Your task to perform on an android device: Search for a 1/2 in. x 1/2 in. x 24 in. 600 grit sander on Lowes.com Image 0: 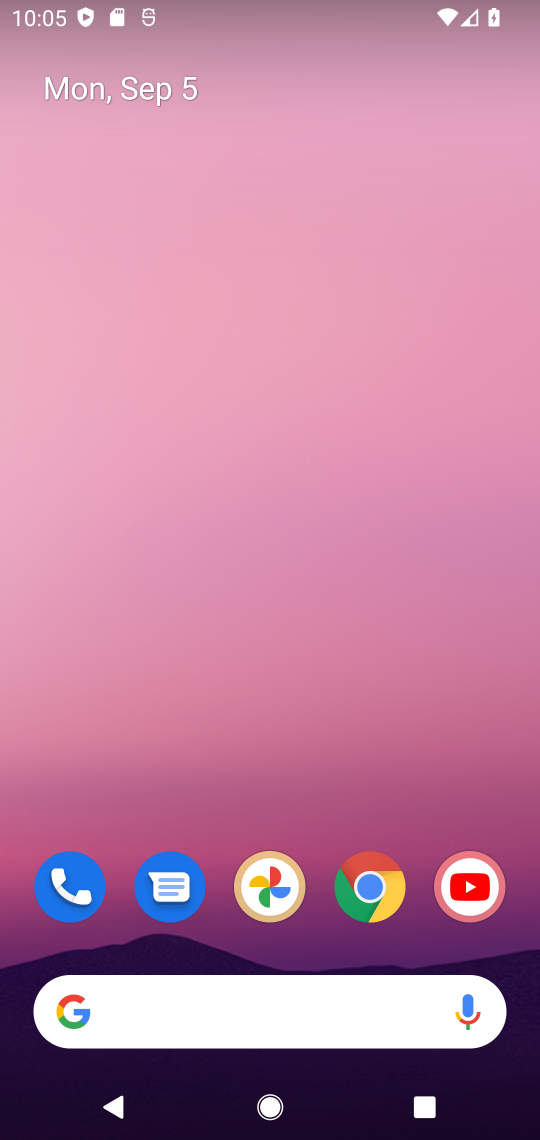
Step 0: click (359, 880)
Your task to perform on an android device: Search for a 1/2 in. x 1/2 in. x 24 in. 600 grit sander on Lowes.com Image 1: 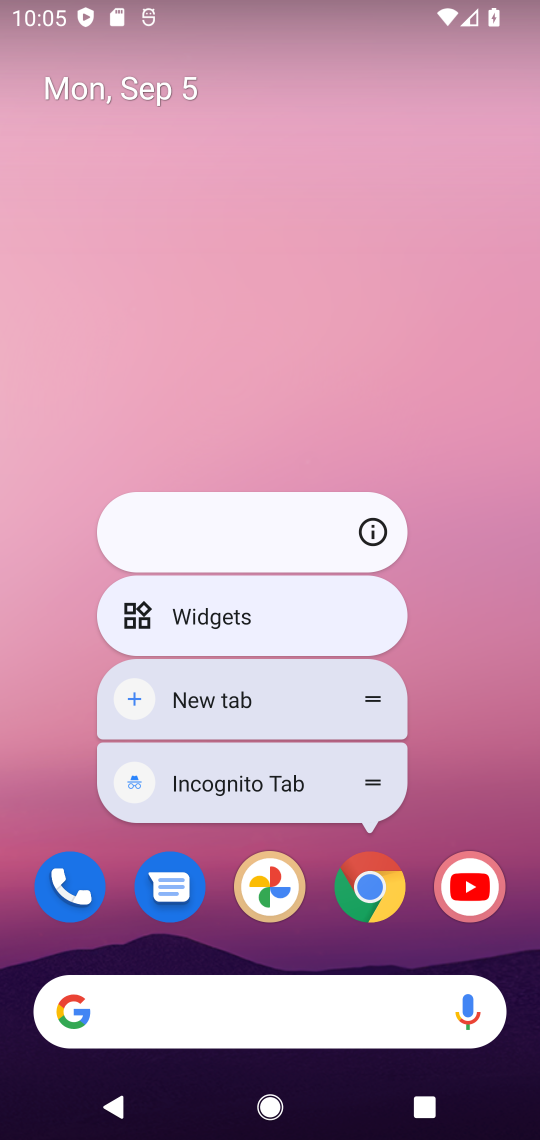
Step 1: click (359, 879)
Your task to perform on an android device: Search for a 1/2 in. x 1/2 in. x 24 in. 600 grit sander on Lowes.com Image 2: 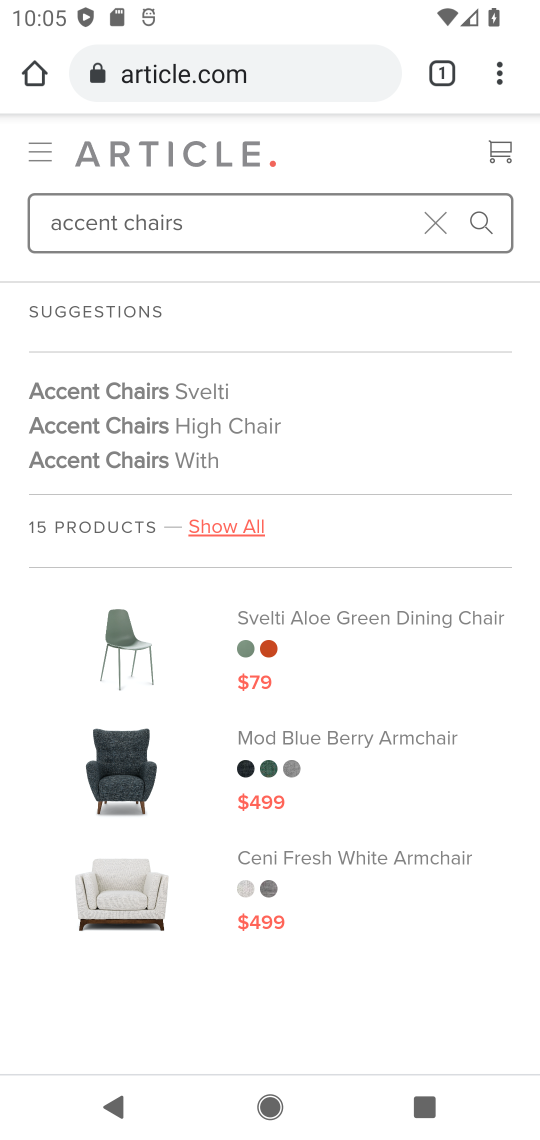
Step 2: click (194, 63)
Your task to perform on an android device: Search for a 1/2 in. x 1/2 in. x 24 in. 600 grit sander on Lowes.com Image 3: 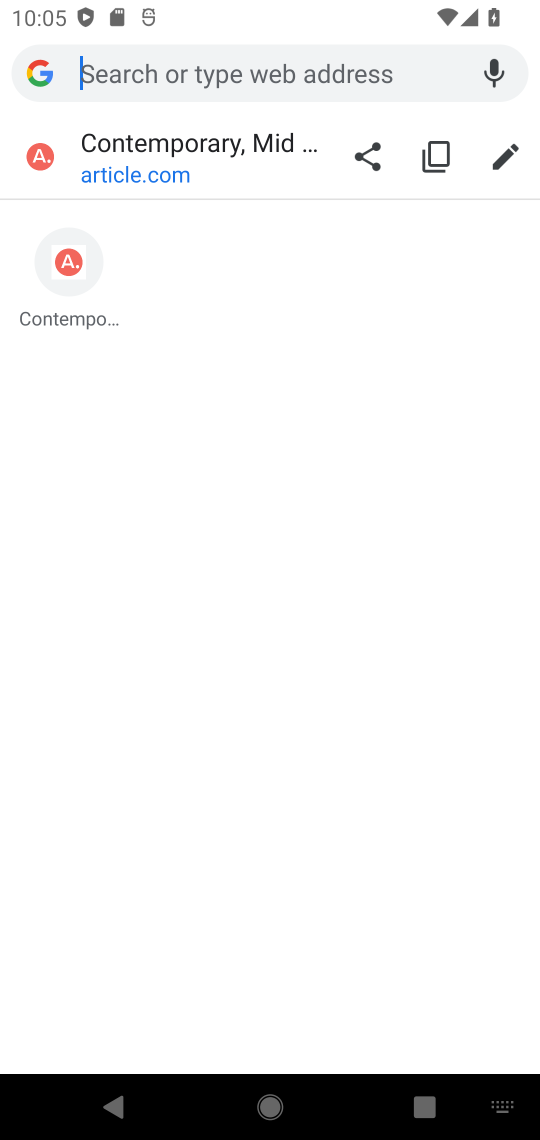
Step 3: type "Lowes.com"
Your task to perform on an android device: Search for a 1/2 in. x 1/2 in. x 24 in. 600 grit sander on Lowes.com Image 4: 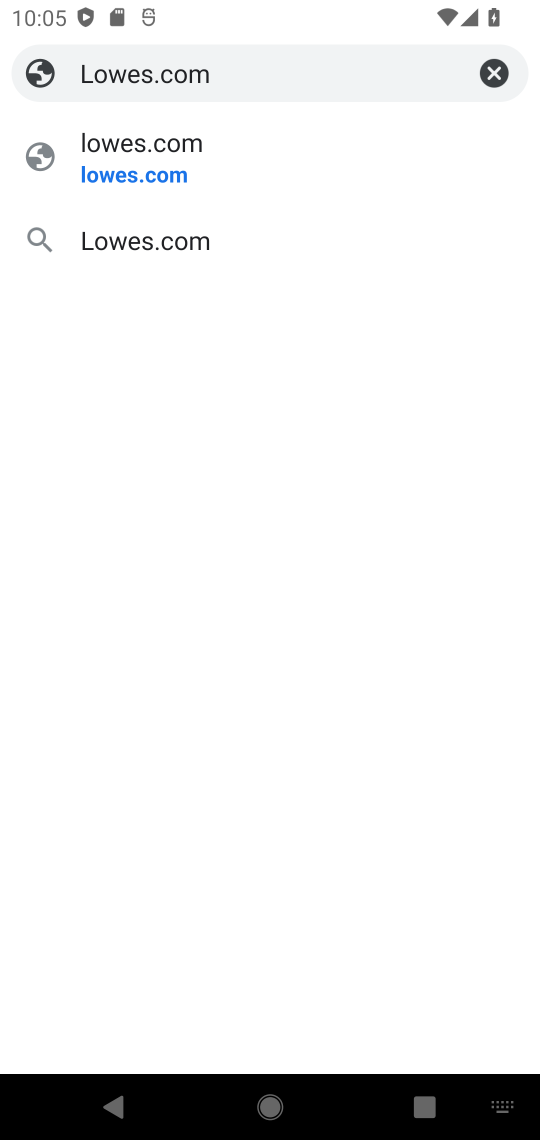
Step 4: click (143, 171)
Your task to perform on an android device: Search for a 1/2 in. x 1/2 in. x 24 in. 600 grit sander on Lowes.com Image 5: 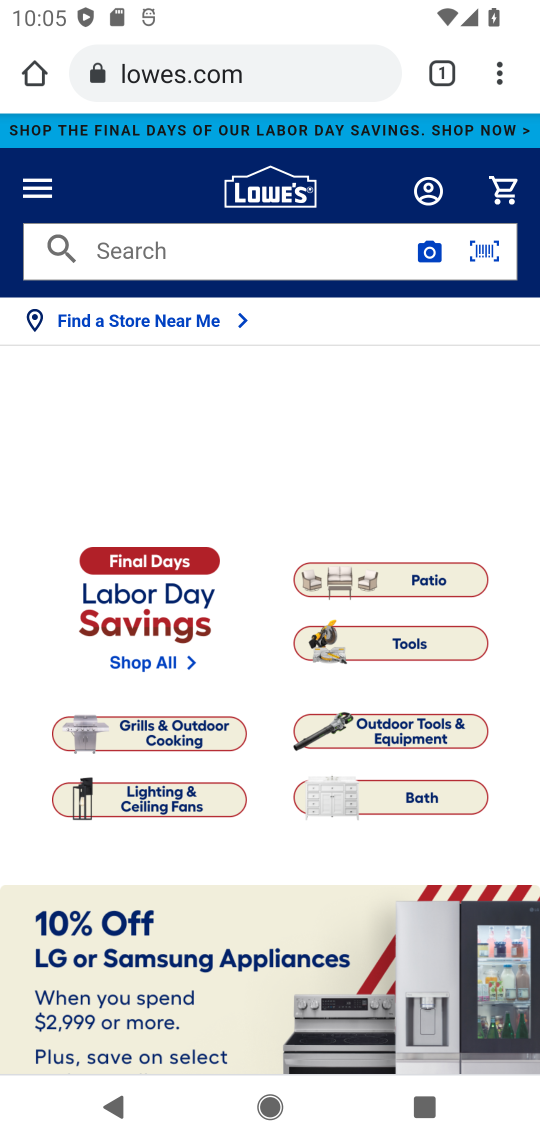
Step 5: click (210, 255)
Your task to perform on an android device: Search for a 1/2 in. x 1/2 in. x 24 in. 600 grit sander on Lowes.com Image 6: 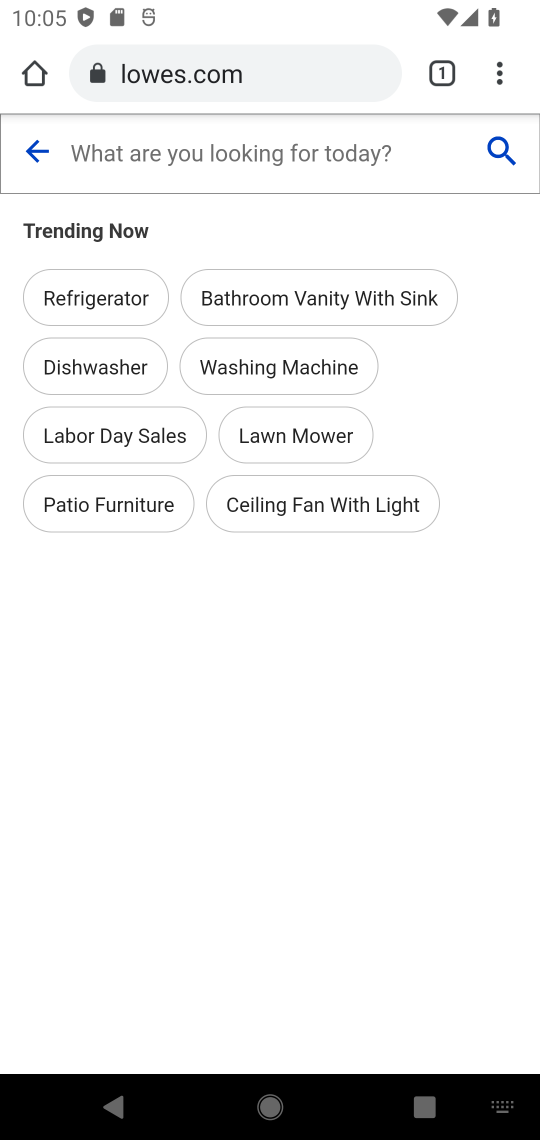
Step 6: drag from (232, 1138) to (522, 1073)
Your task to perform on an android device: Search for a 1/2 in. x 1/2 in. x 24 in. 600 grit sander on Lowes.com Image 7: 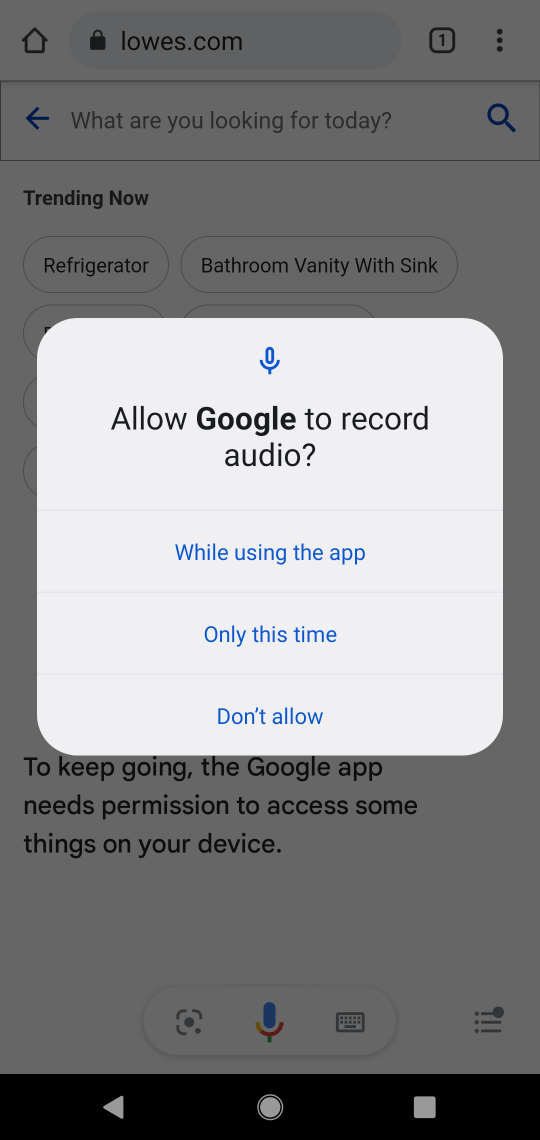
Step 7: click (198, 164)
Your task to perform on an android device: Search for a 1/2 in. x 1/2 in. x 24 in. 600 grit sander on Lowes.com Image 8: 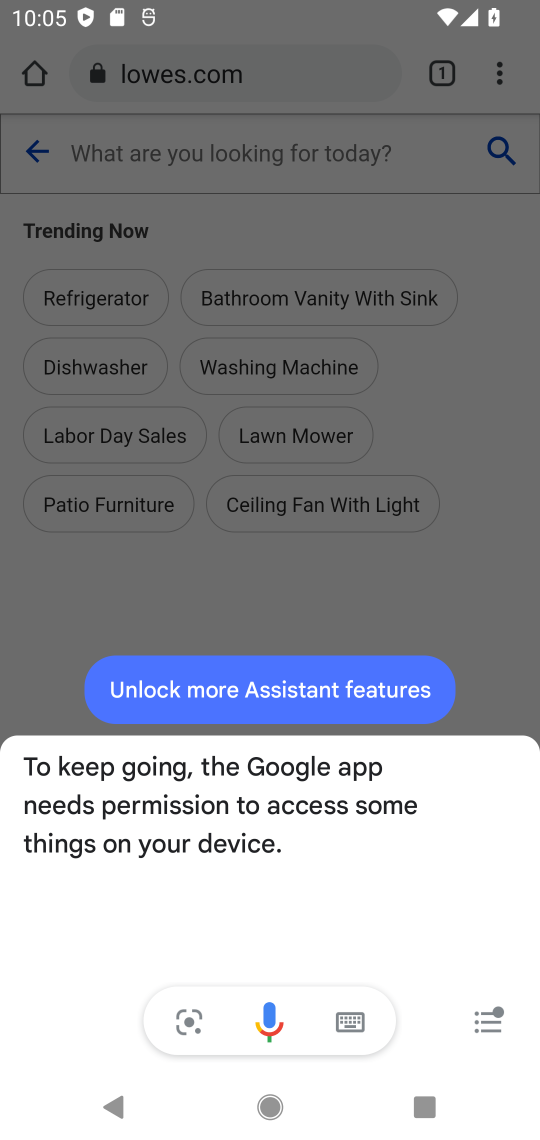
Step 8: click (198, 164)
Your task to perform on an android device: Search for a 1/2 in. x 1/2 in. x 24 in. 600 grit sander on Lowes.com Image 9: 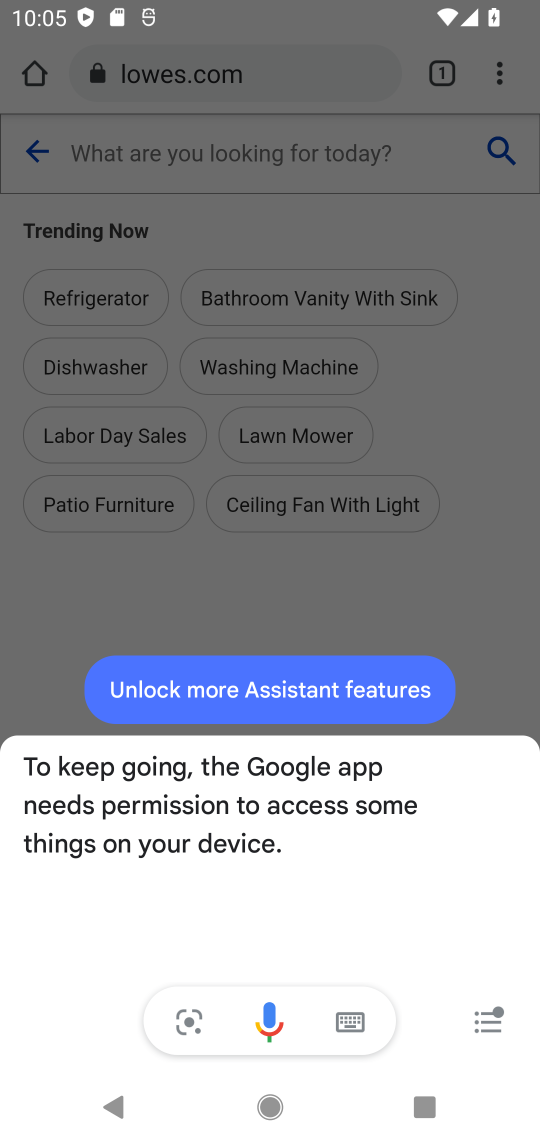
Step 9: click (198, 164)
Your task to perform on an android device: Search for a 1/2 in. x 1/2 in. x 24 in. 600 grit sander on Lowes.com Image 10: 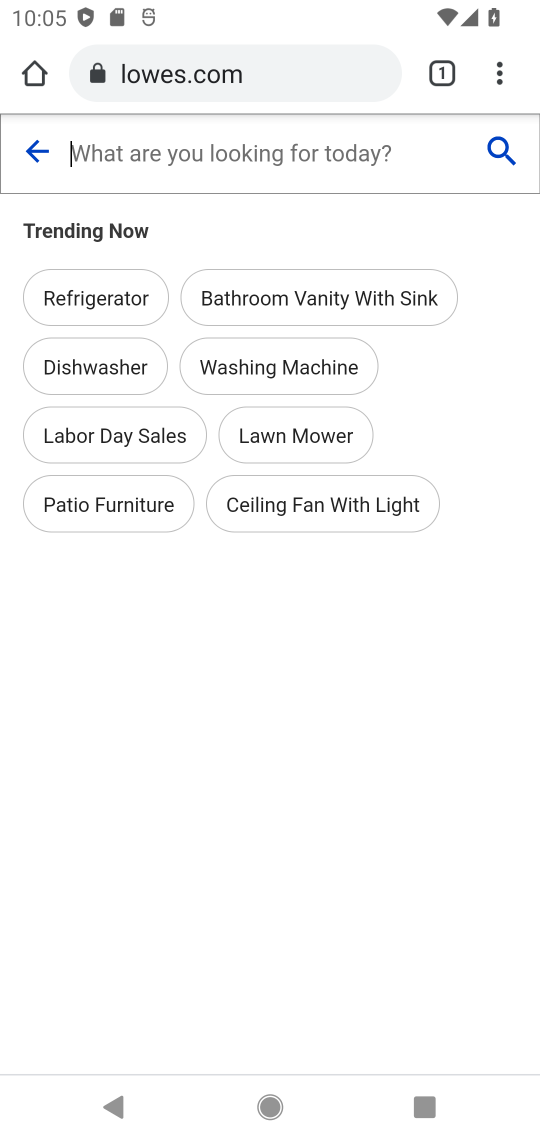
Step 10: click (198, 164)
Your task to perform on an android device: Search for a 1/2 in. x 1/2 in. x 24 in. 600 grit sander on Lowes.com Image 11: 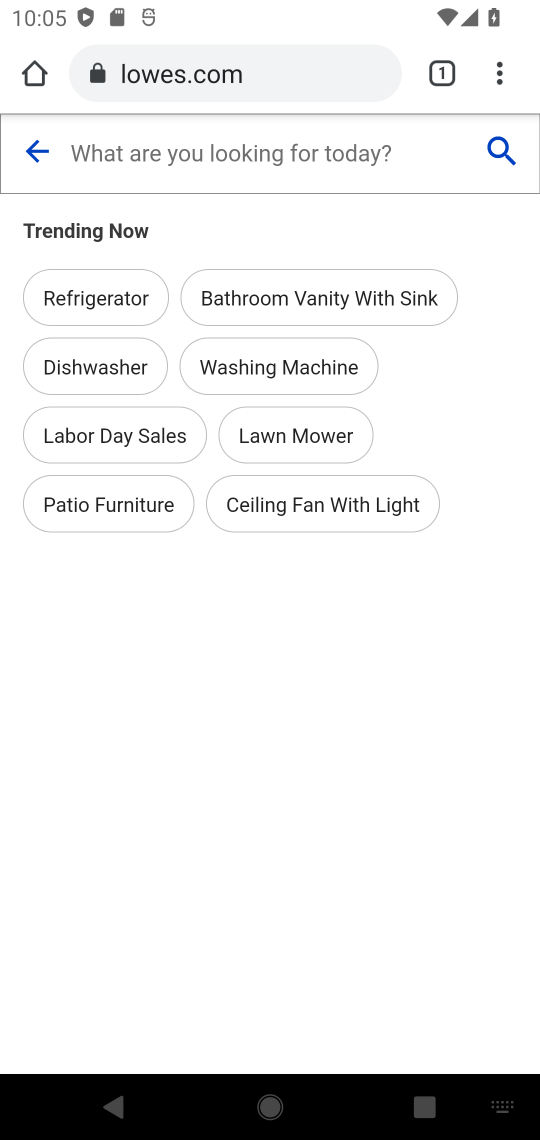
Step 11: type " 1/2 in. x 1/2 in. x 24 in. 600 grit sander"
Your task to perform on an android device: Search for a 1/2 in. x 1/2 in. x 24 in. 600 grit sander on Lowes.com Image 12: 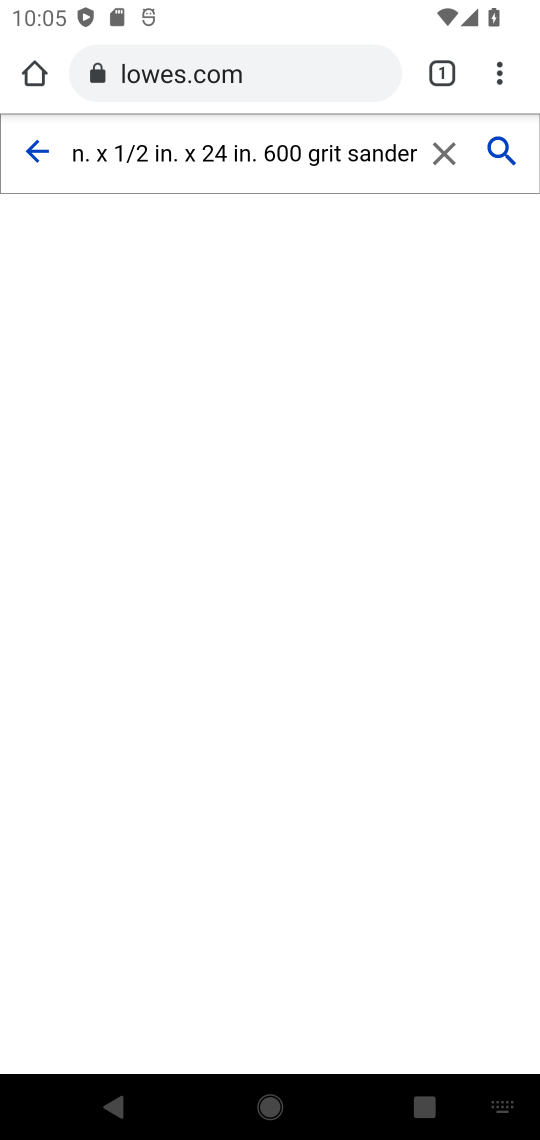
Step 12: click (497, 152)
Your task to perform on an android device: Search for a 1/2 in. x 1/2 in. x 24 in. 600 grit sander on Lowes.com Image 13: 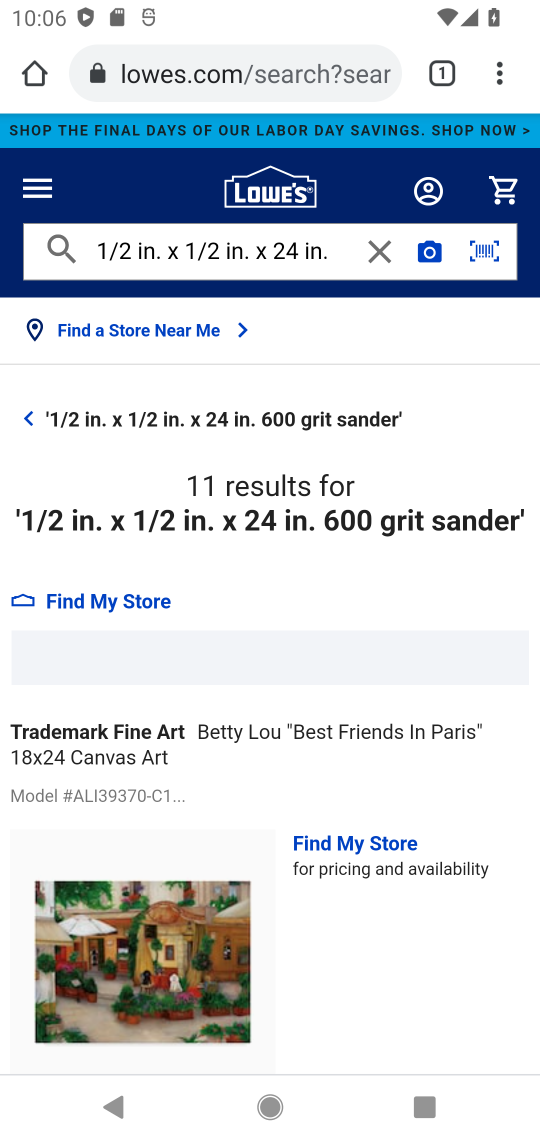
Step 13: task complete